Your task to perform on an android device: turn vacation reply on in the gmail app Image 0: 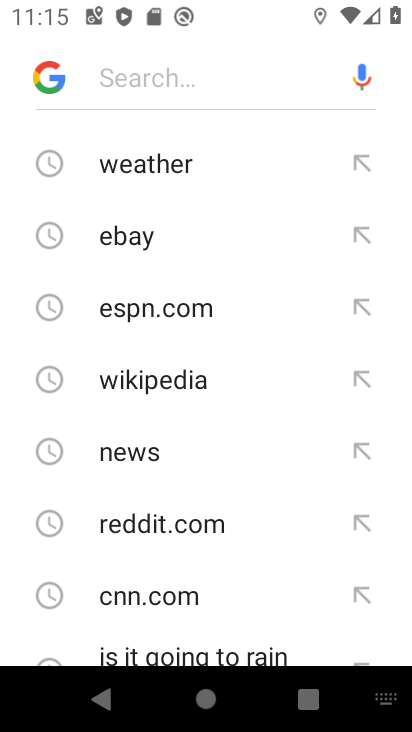
Step 0: press home button
Your task to perform on an android device: turn vacation reply on in the gmail app Image 1: 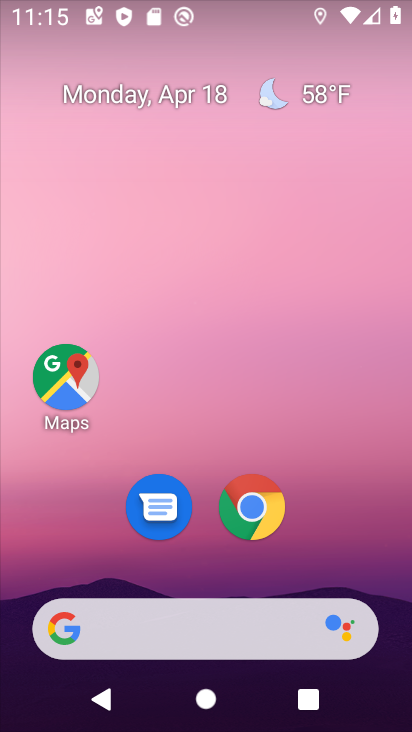
Step 1: drag from (213, 480) to (279, 108)
Your task to perform on an android device: turn vacation reply on in the gmail app Image 2: 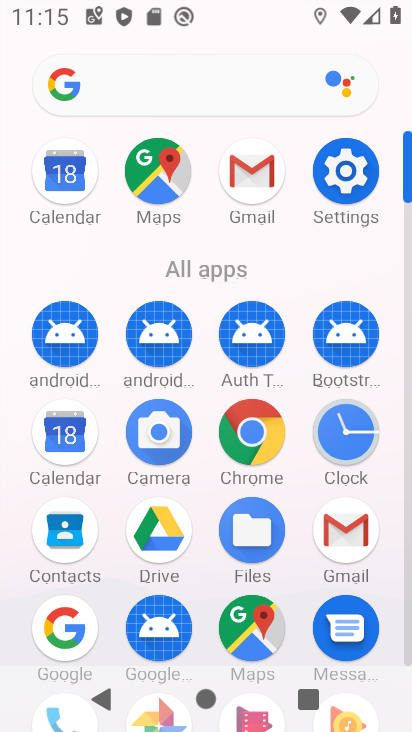
Step 2: click (337, 538)
Your task to perform on an android device: turn vacation reply on in the gmail app Image 3: 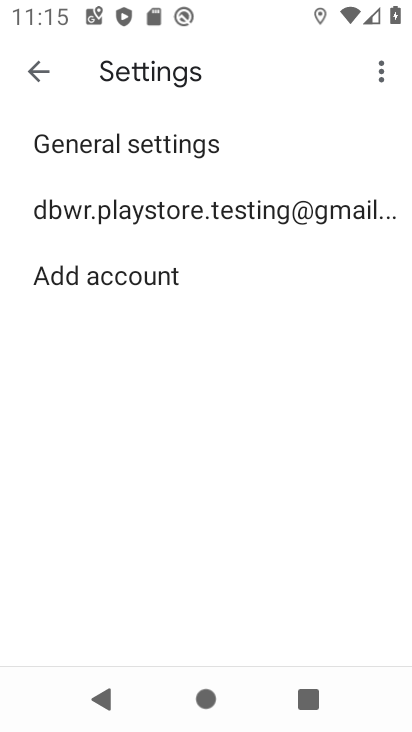
Step 3: click (144, 214)
Your task to perform on an android device: turn vacation reply on in the gmail app Image 4: 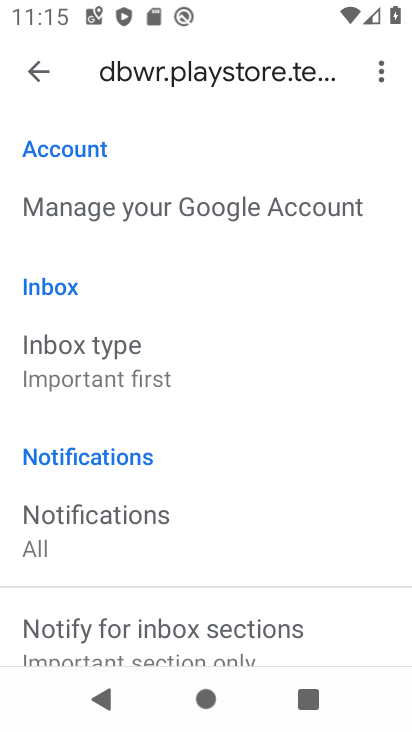
Step 4: drag from (148, 559) to (243, 225)
Your task to perform on an android device: turn vacation reply on in the gmail app Image 5: 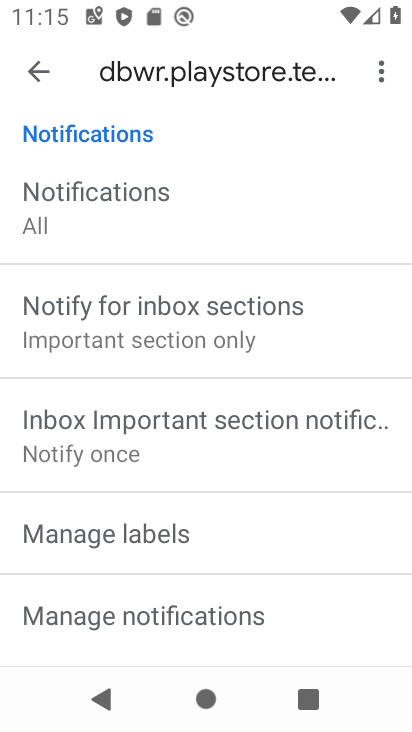
Step 5: drag from (183, 531) to (255, 203)
Your task to perform on an android device: turn vacation reply on in the gmail app Image 6: 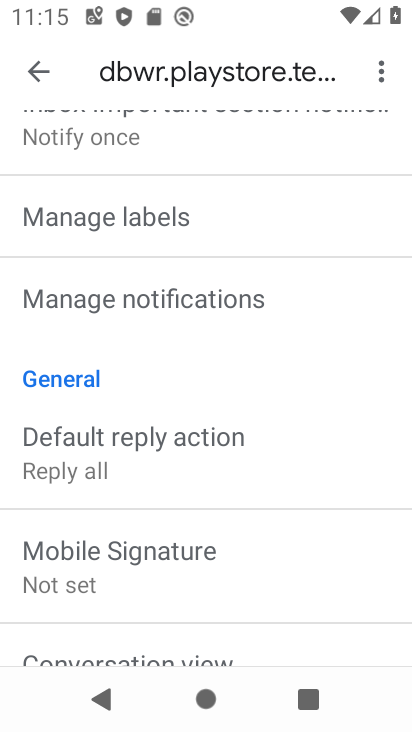
Step 6: drag from (158, 467) to (219, 77)
Your task to perform on an android device: turn vacation reply on in the gmail app Image 7: 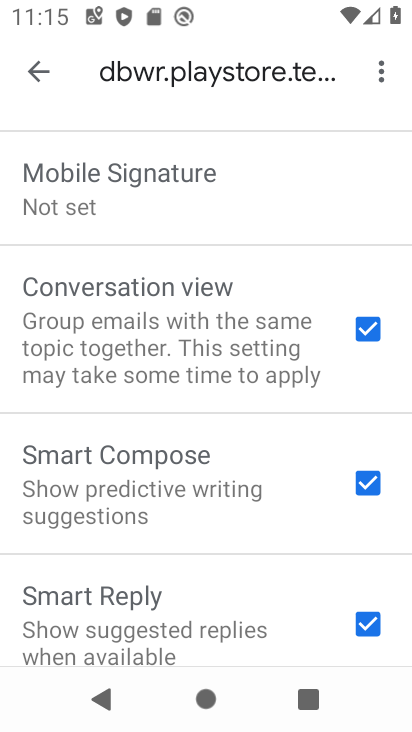
Step 7: drag from (167, 555) to (273, 127)
Your task to perform on an android device: turn vacation reply on in the gmail app Image 8: 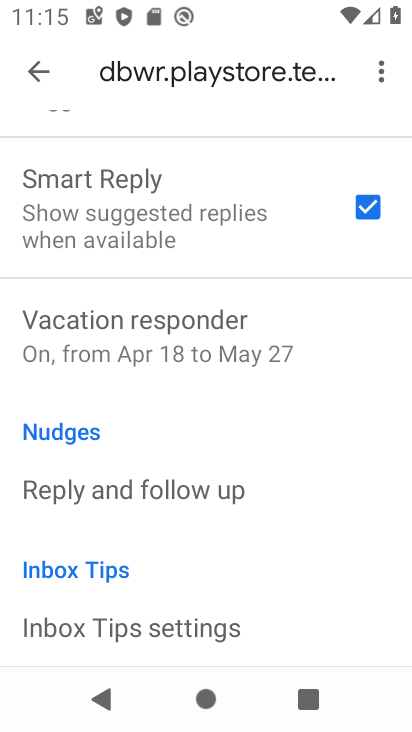
Step 8: click (187, 318)
Your task to perform on an android device: turn vacation reply on in the gmail app Image 9: 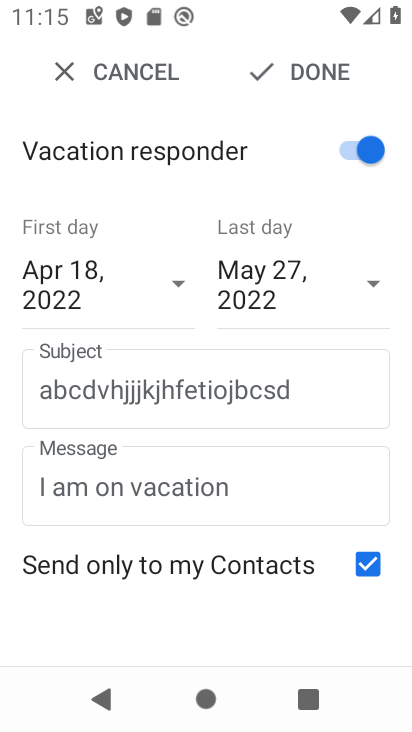
Step 9: task complete